Your task to perform on an android device: turn off translation in the chrome app Image 0: 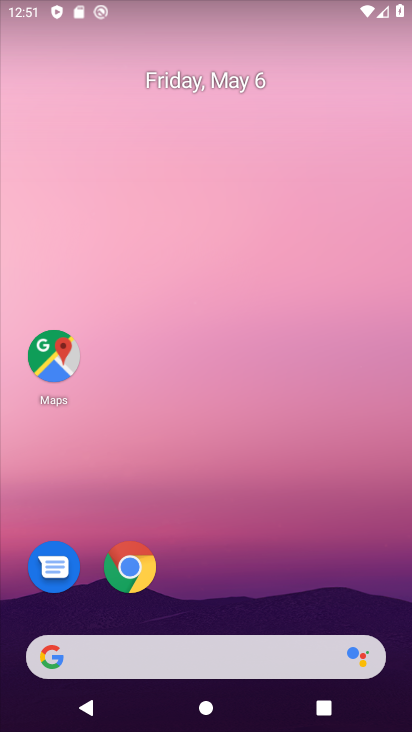
Step 0: drag from (297, 695) to (248, 305)
Your task to perform on an android device: turn off translation in the chrome app Image 1: 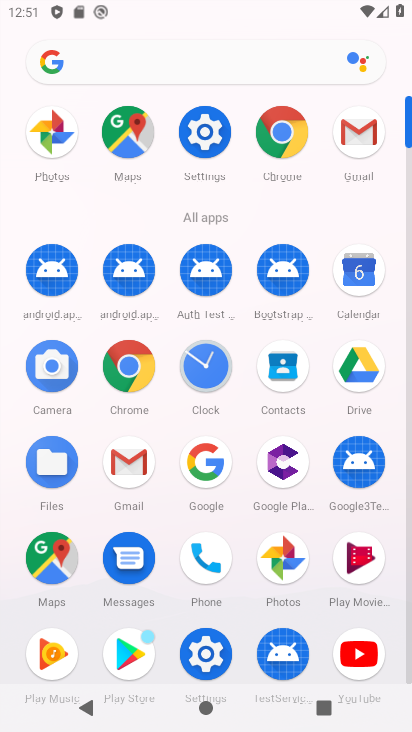
Step 1: click (288, 145)
Your task to perform on an android device: turn off translation in the chrome app Image 2: 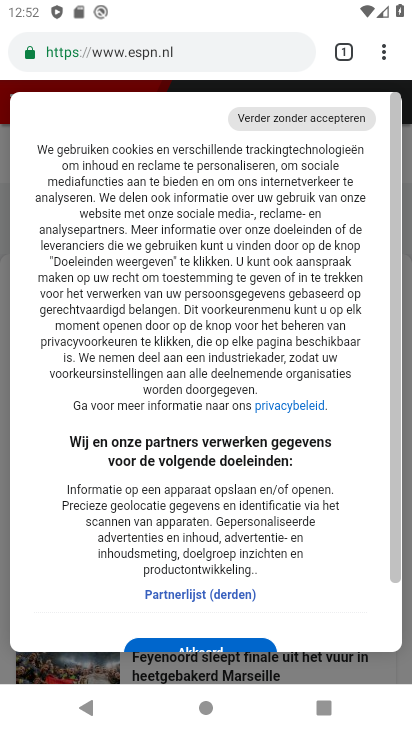
Step 2: click (386, 68)
Your task to perform on an android device: turn off translation in the chrome app Image 3: 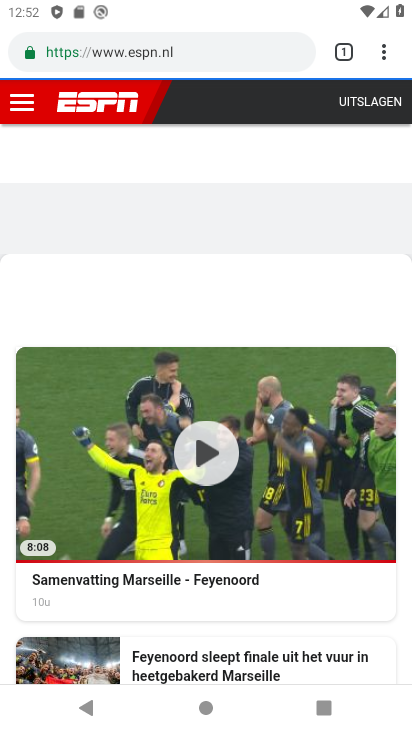
Step 3: click (384, 72)
Your task to perform on an android device: turn off translation in the chrome app Image 4: 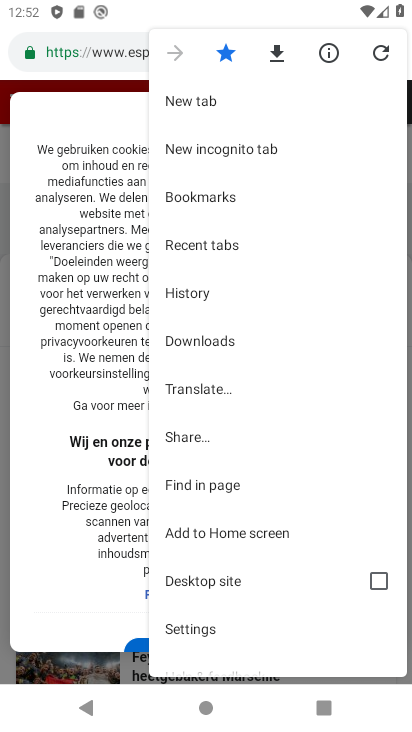
Step 4: click (218, 634)
Your task to perform on an android device: turn off translation in the chrome app Image 5: 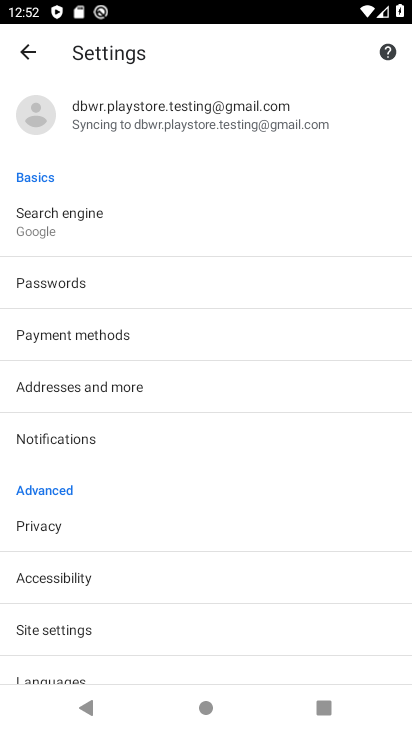
Step 5: click (89, 630)
Your task to perform on an android device: turn off translation in the chrome app Image 6: 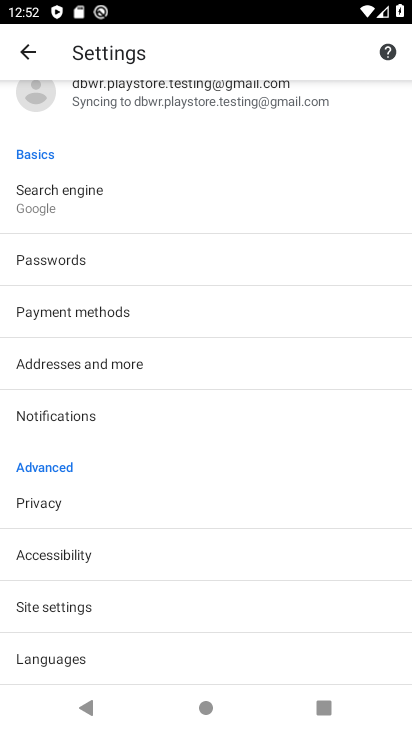
Step 6: click (74, 660)
Your task to perform on an android device: turn off translation in the chrome app Image 7: 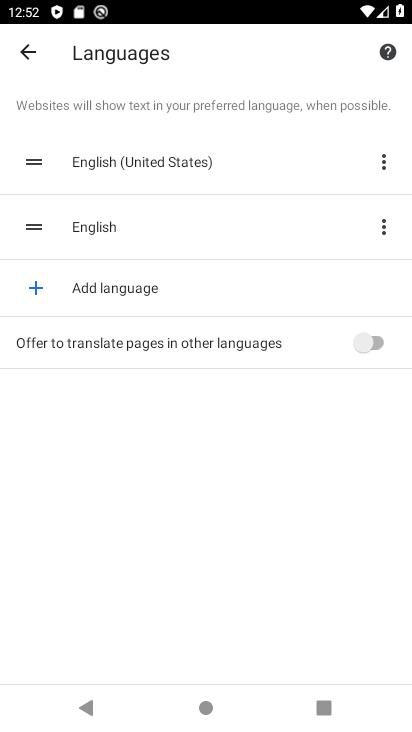
Step 7: click (272, 333)
Your task to perform on an android device: turn off translation in the chrome app Image 8: 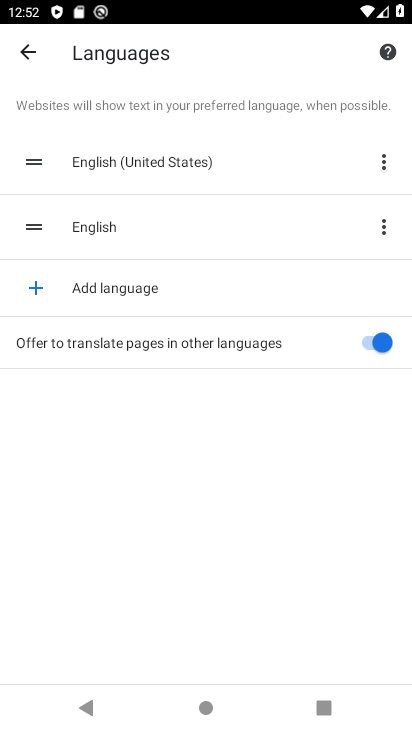
Step 8: task complete